Your task to perform on an android device: Open settings on Google Maps Image 0: 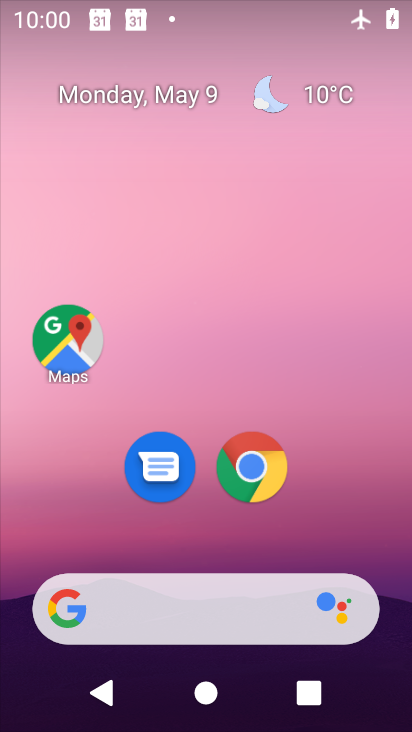
Step 0: click (38, 311)
Your task to perform on an android device: Open settings on Google Maps Image 1: 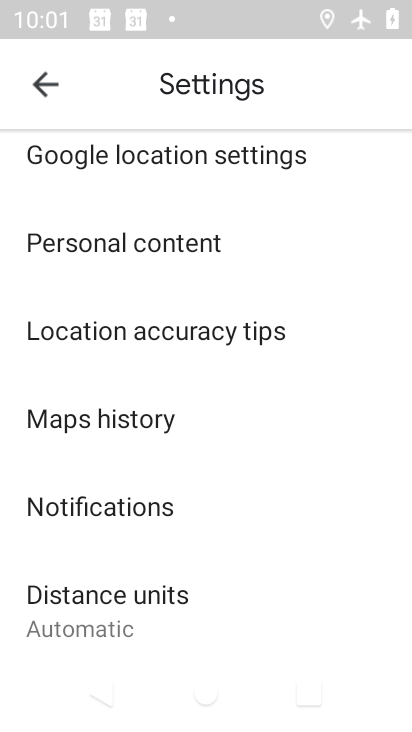
Step 1: task complete